Your task to perform on an android device: turn pop-ups on in chrome Image 0: 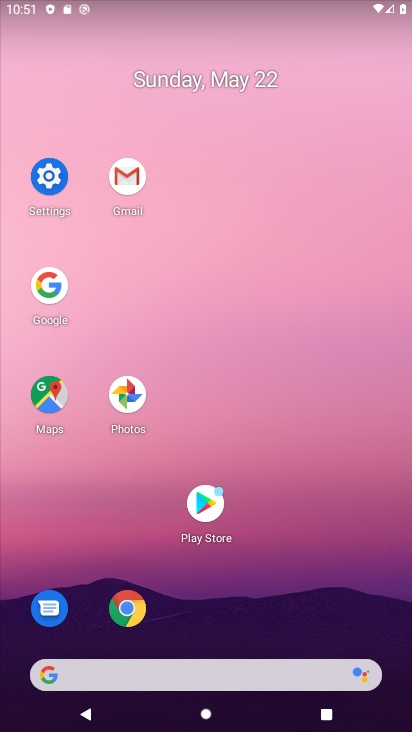
Step 0: click (139, 607)
Your task to perform on an android device: turn pop-ups on in chrome Image 1: 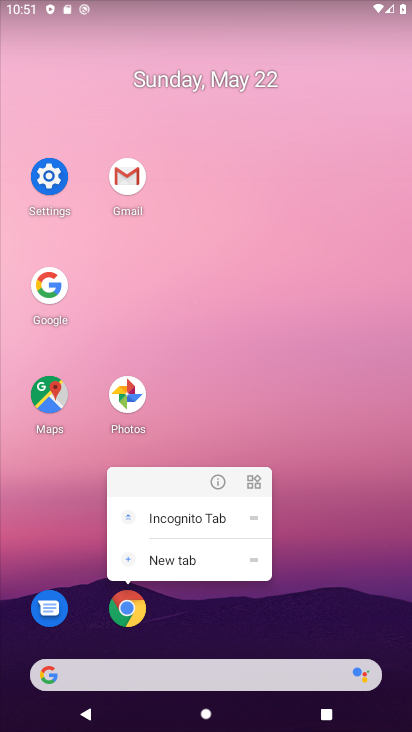
Step 1: click (139, 602)
Your task to perform on an android device: turn pop-ups on in chrome Image 2: 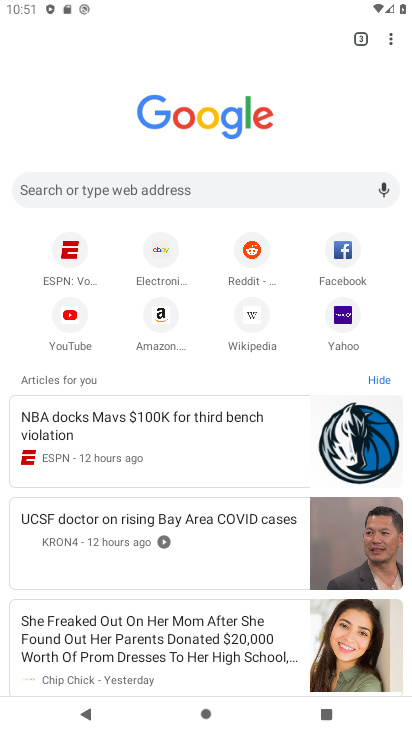
Step 2: click (395, 42)
Your task to perform on an android device: turn pop-ups on in chrome Image 3: 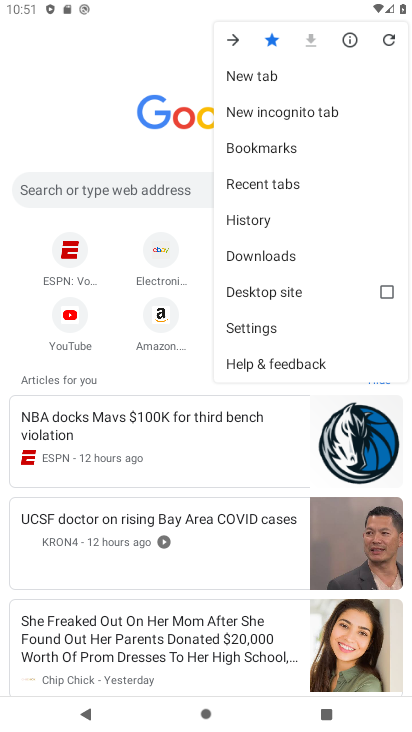
Step 3: click (262, 326)
Your task to perform on an android device: turn pop-ups on in chrome Image 4: 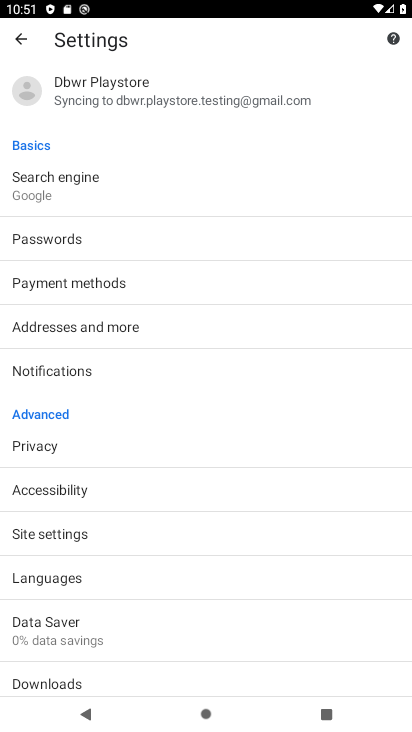
Step 4: click (108, 536)
Your task to perform on an android device: turn pop-ups on in chrome Image 5: 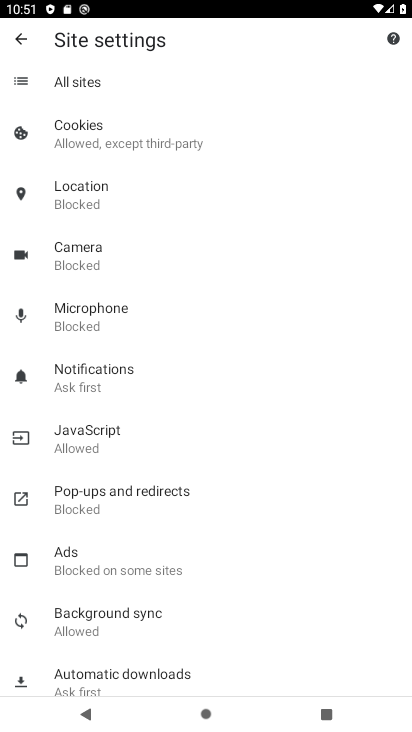
Step 5: click (147, 497)
Your task to perform on an android device: turn pop-ups on in chrome Image 6: 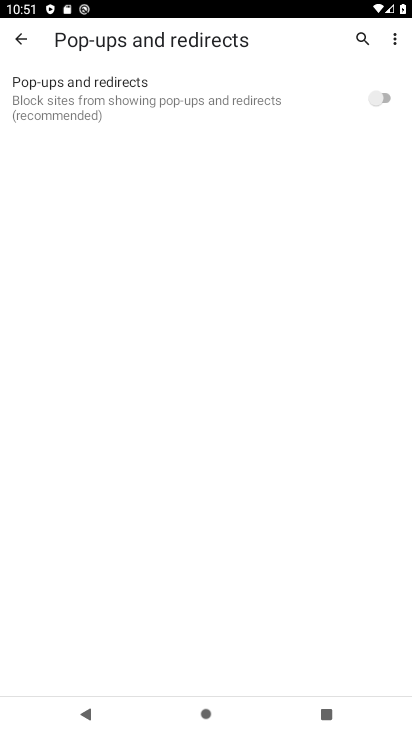
Step 6: click (384, 100)
Your task to perform on an android device: turn pop-ups on in chrome Image 7: 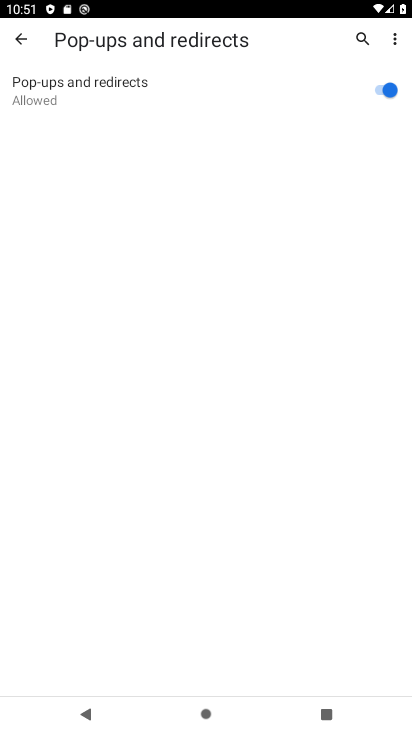
Step 7: task complete